Your task to perform on an android device: toggle wifi Image 0: 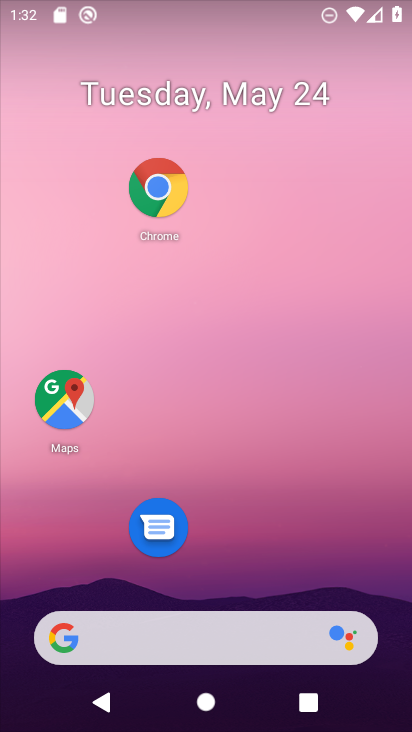
Step 0: drag from (193, 543) to (136, 10)
Your task to perform on an android device: toggle wifi Image 1: 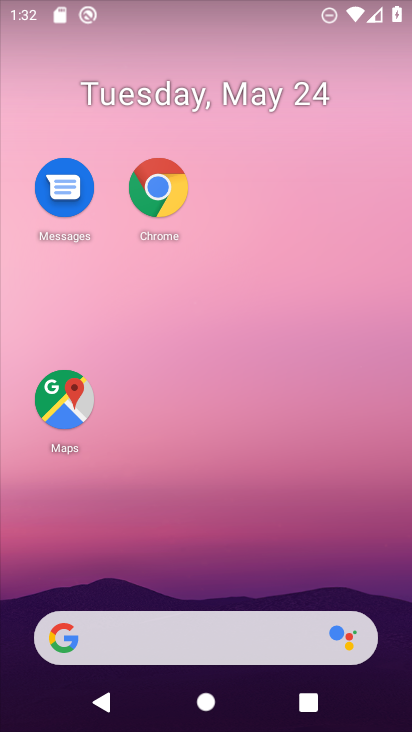
Step 1: drag from (226, 568) to (167, 0)
Your task to perform on an android device: toggle wifi Image 2: 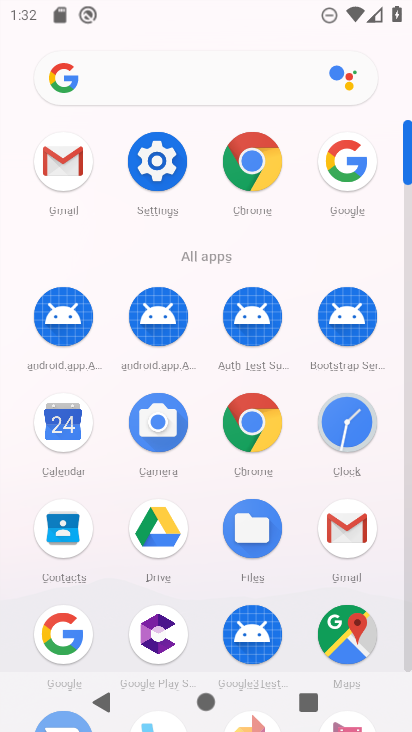
Step 2: click (160, 165)
Your task to perform on an android device: toggle wifi Image 3: 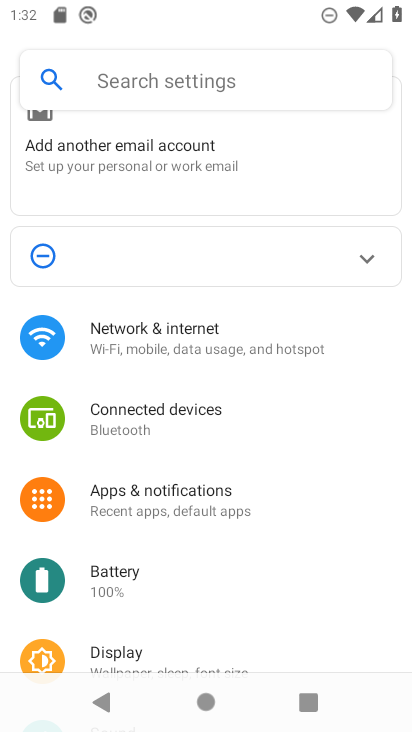
Step 3: click (156, 342)
Your task to perform on an android device: toggle wifi Image 4: 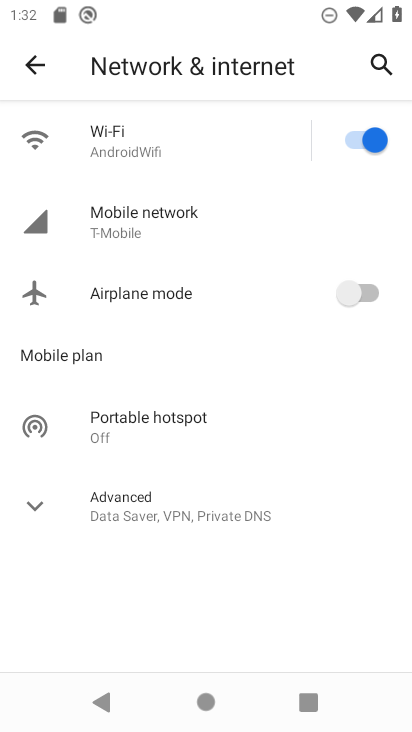
Step 4: click (368, 131)
Your task to perform on an android device: toggle wifi Image 5: 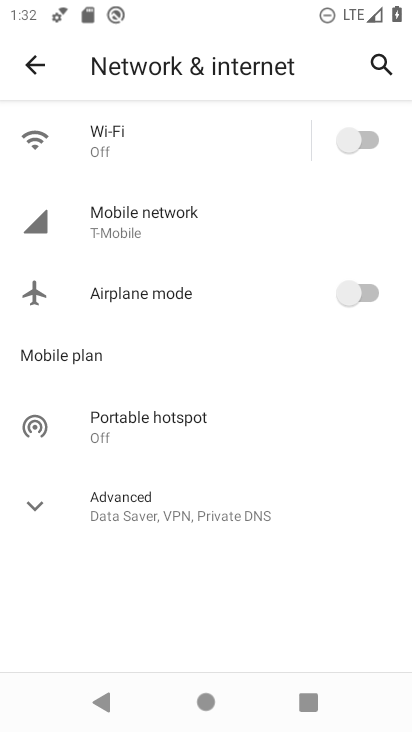
Step 5: task complete